Your task to perform on an android device: What is the capital of Spain? Image 0: 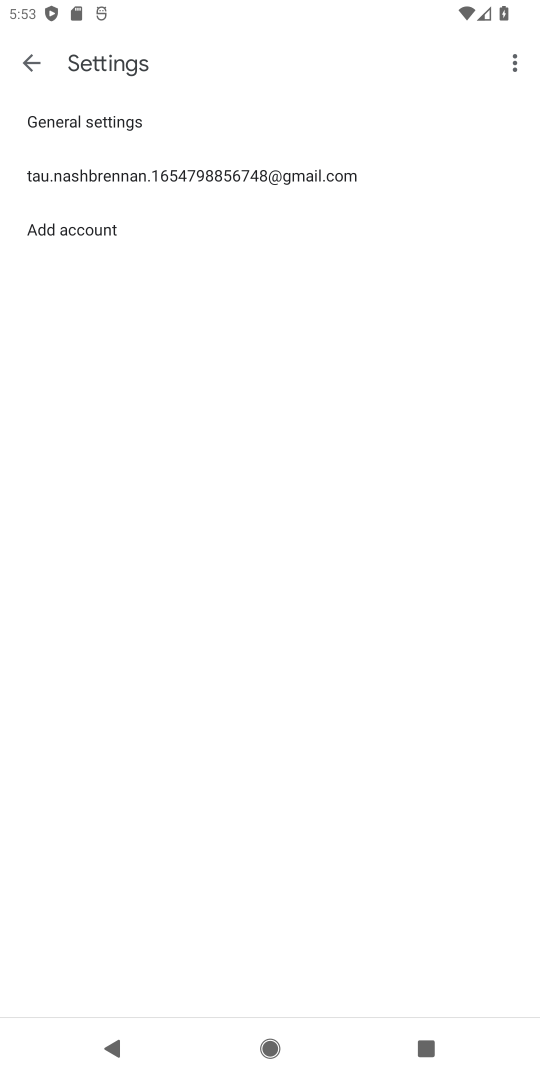
Step 0: press home button
Your task to perform on an android device: What is the capital of Spain? Image 1: 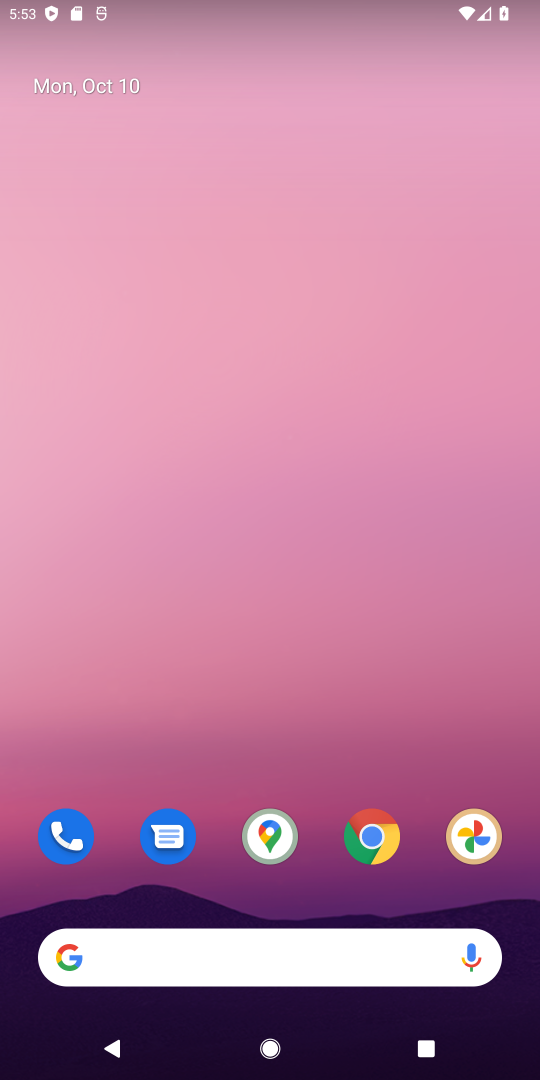
Step 1: click (375, 832)
Your task to perform on an android device: What is the capital of Spain? Image 2: 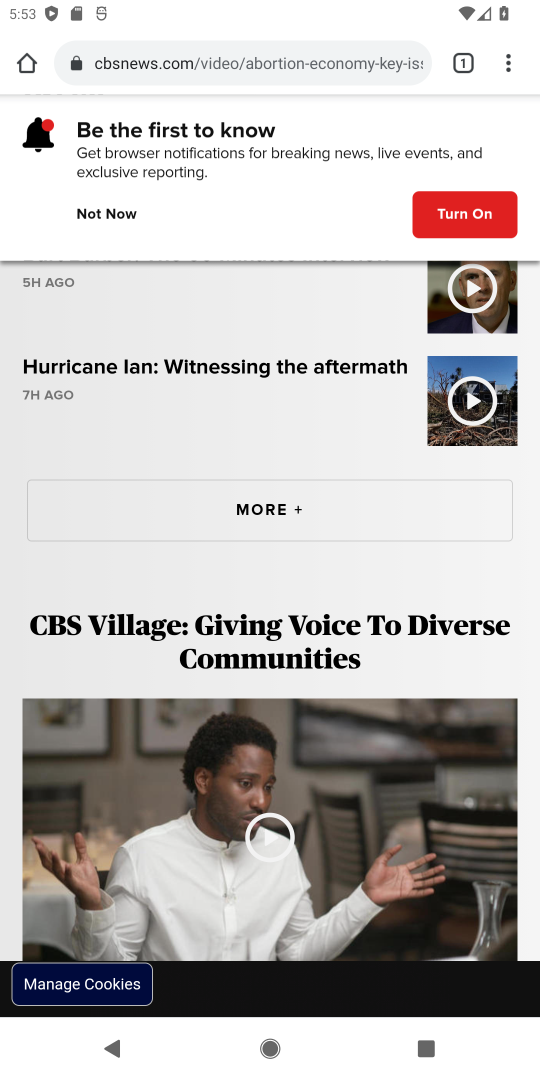
Step 2: click (184, 48)
Your task to perform on an android device: What is the capital of Spain? Image 3: 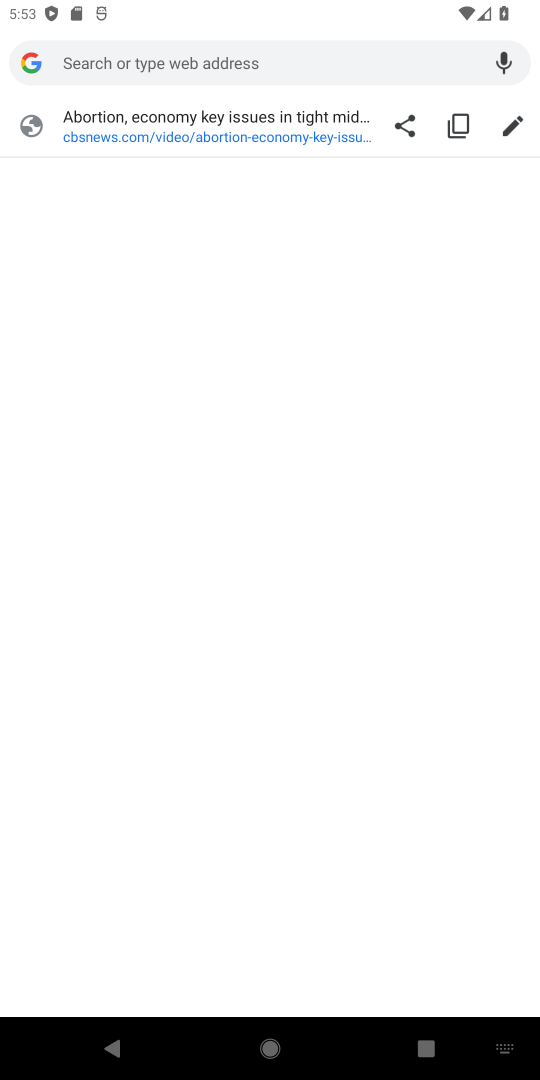
Step 3: type "capital of spain"
Your task to perform on an android device: What is the capital of Spain? Image 4: 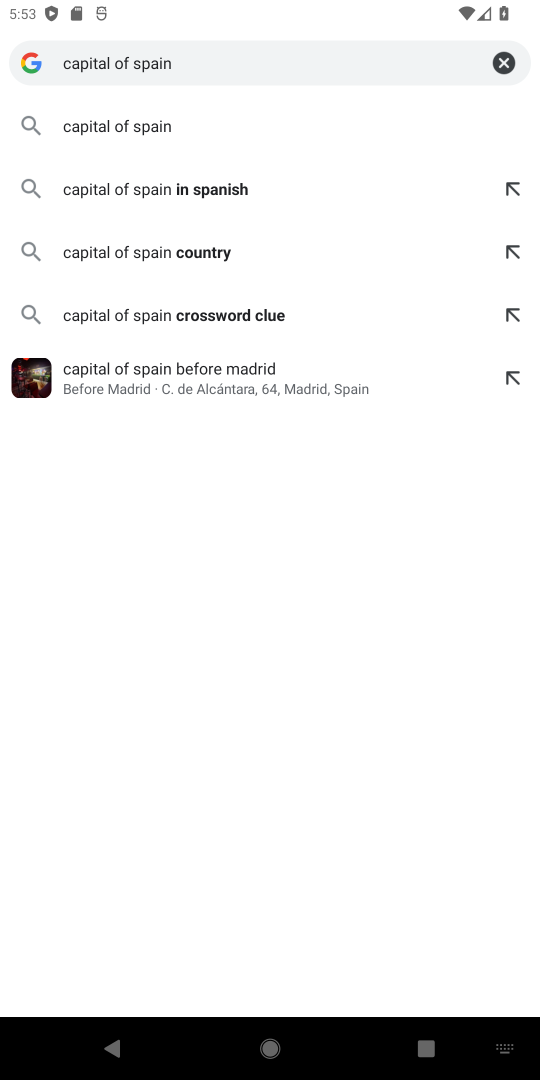
Step 4: click (111, 135)
Your task to perform on an android device: What is the capital of Spain? Image 5: 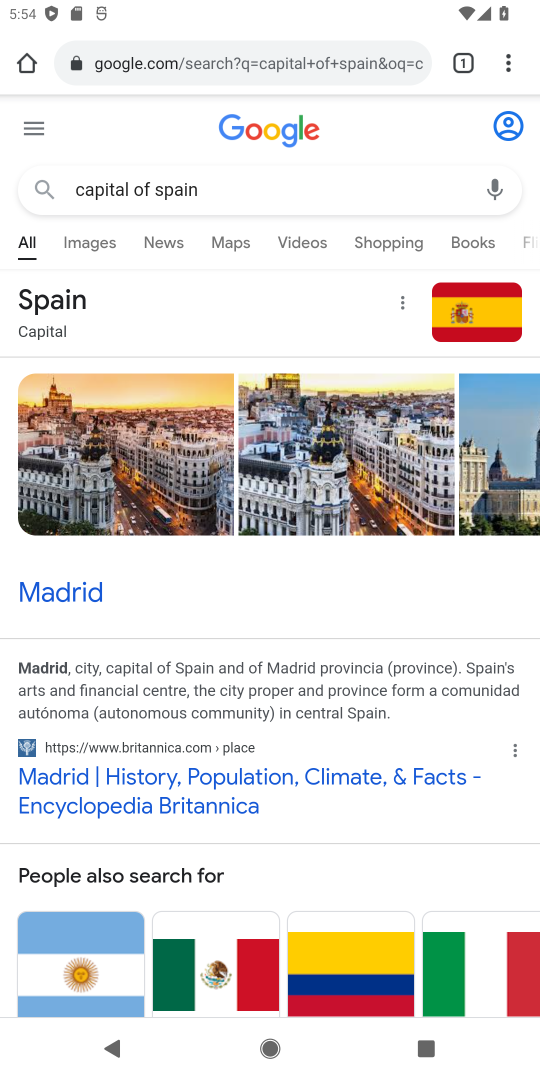
Step 5: task complete